Your task to perform on an android device: change the clock display to digital Image 0: 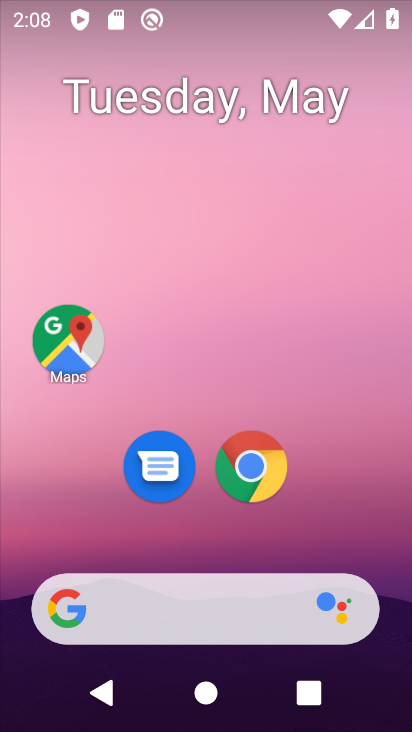
Step 0: drag from (311, 501) to (375, 0)
Your task to perform on an android device: change the clock display to digital Image 1: 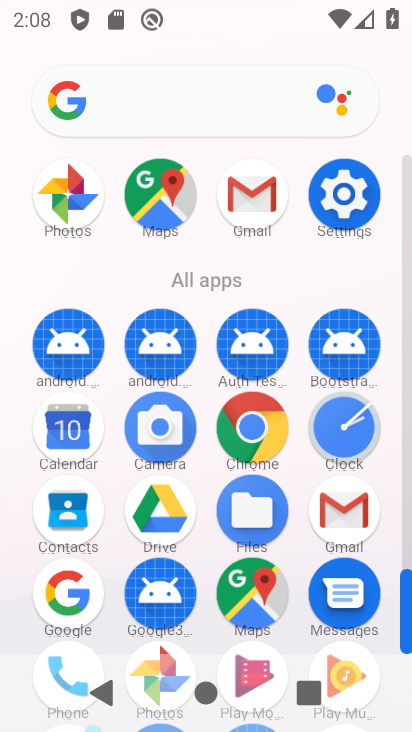
Step 1: click (335, 442)
Your task to perform on an android device: change the clock display to digital Image 2: 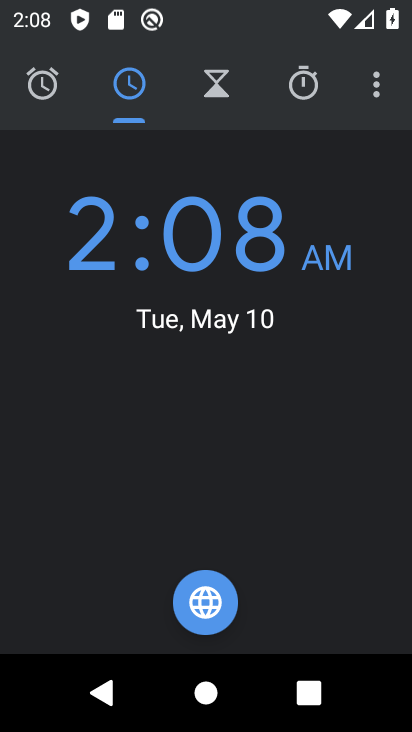
Step 2: click (377, 87)
Your task to perform on an android device: change the clock display to digital Image 3: 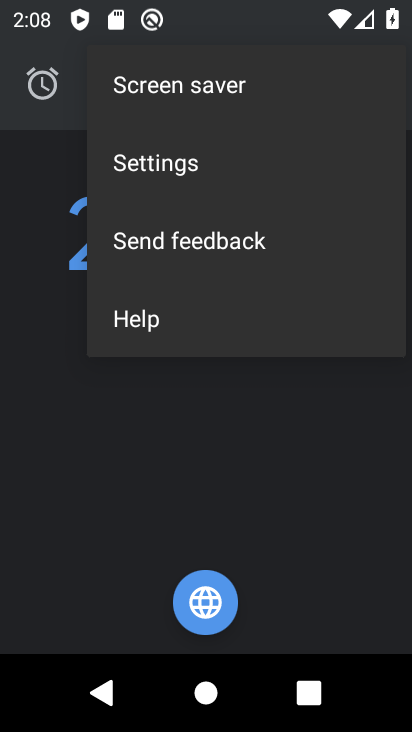
Step 3: click (200, 167)
Your task to perform on an android device: change the clock display to digital Image 4: 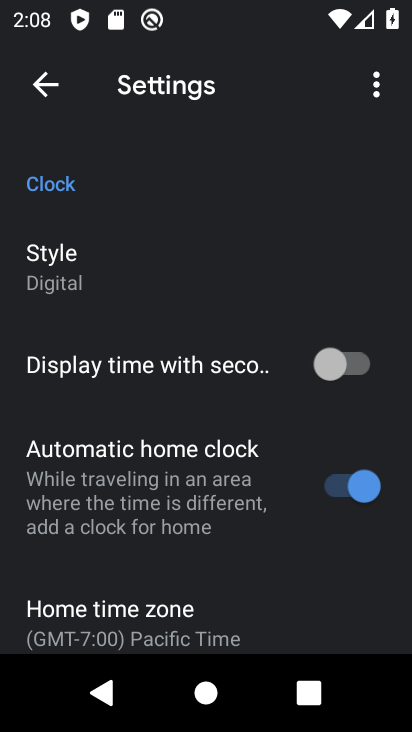
Step 4: click (108, 265)
Your task to perform on an android device: change the clock display to digital Image 5: 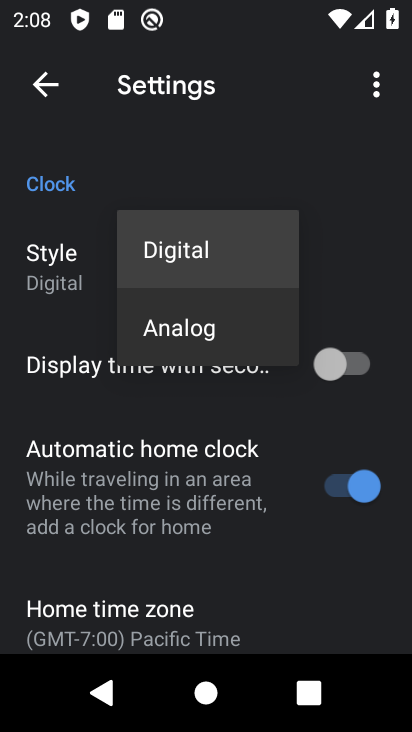
Step 5: click (231, 265)
Your task to perform on an android device: change the clock display to digital Image 6: 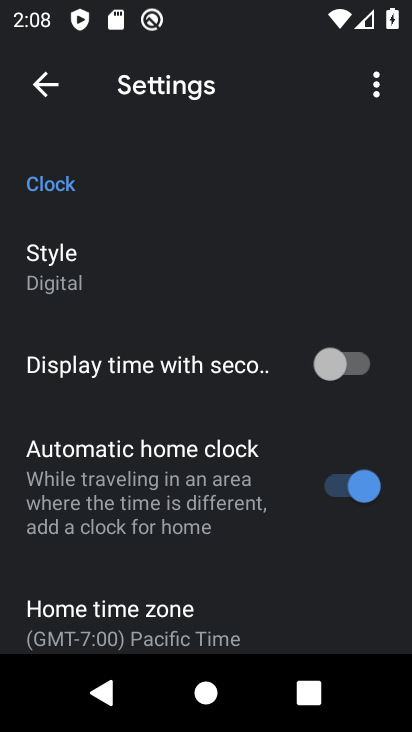
Step 6: task complete